Your task to perform on an android device: toggle translation in the chrome app Image 0: 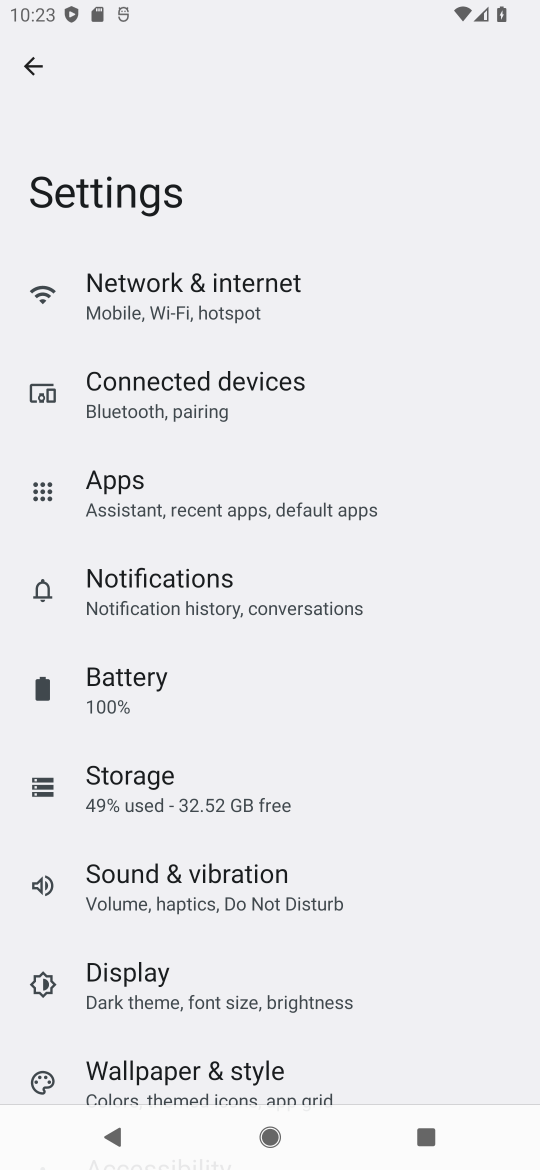
Step 0: press home button
Your task to perform on an android device: toggle translation in the chrome app Image 1: 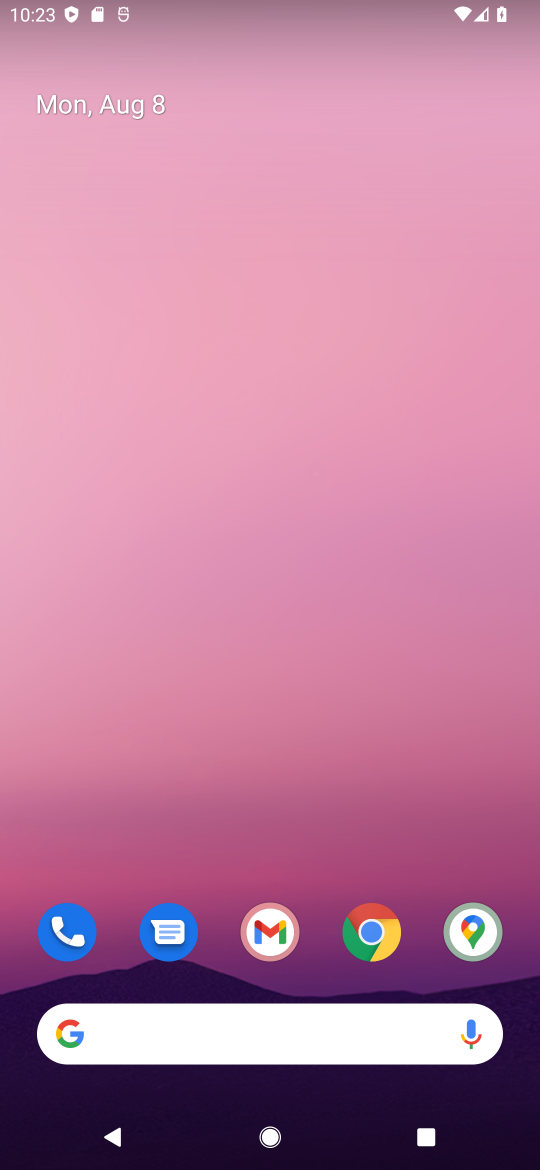
Step 1: click (380, 956)
Your task to perform on an android device: toggle translation in the chrome app Image 2: 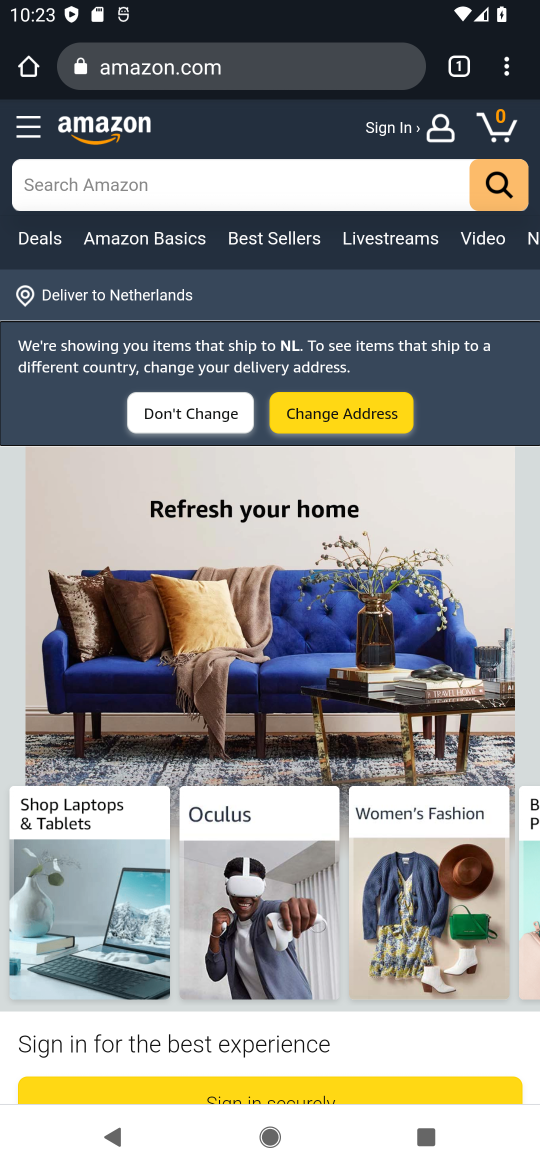
Step 2: click (520, 76)
Your task to perform on an android device: toggle translation in the chrome app Image 3: 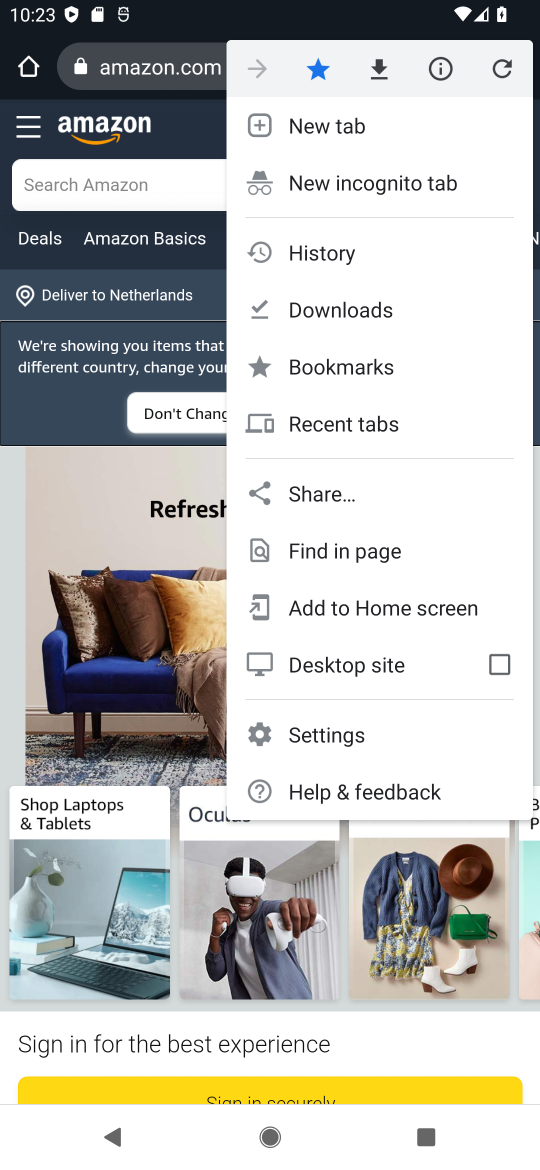
Step 3: click (367, 742)
Your task to perform on an android device: toggle translation in the chrome app Image 4: 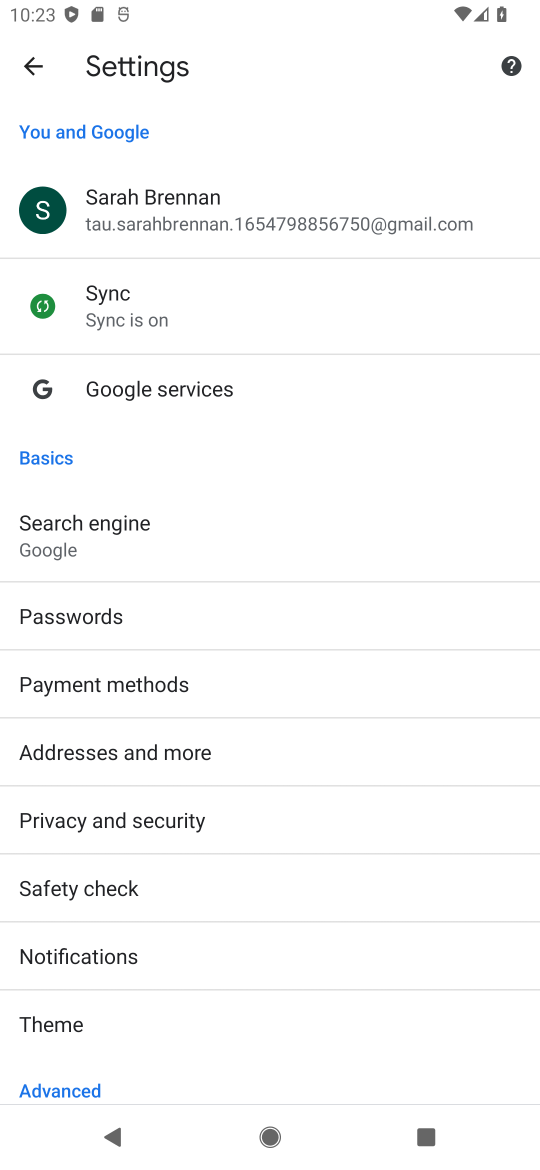
Step 4: drag from (200, 1060) to (67, 517)
Your task to perform on an android device: toggle translation in the chrome app Image 5: 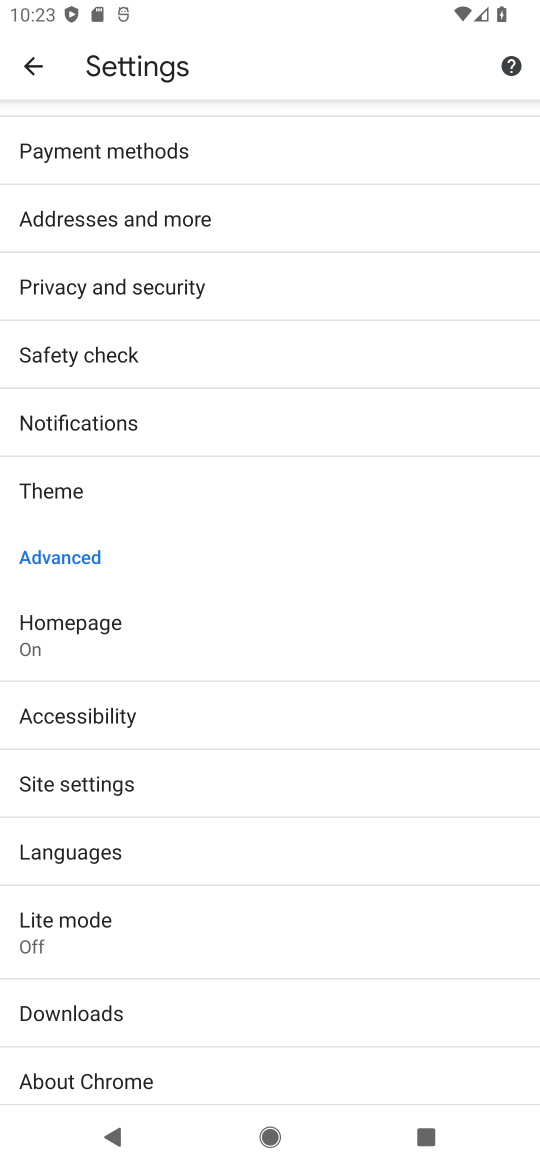
Step 5: click (152, 851)
Your task to perform on an android device: toggle translation in the chrome app Image 6: 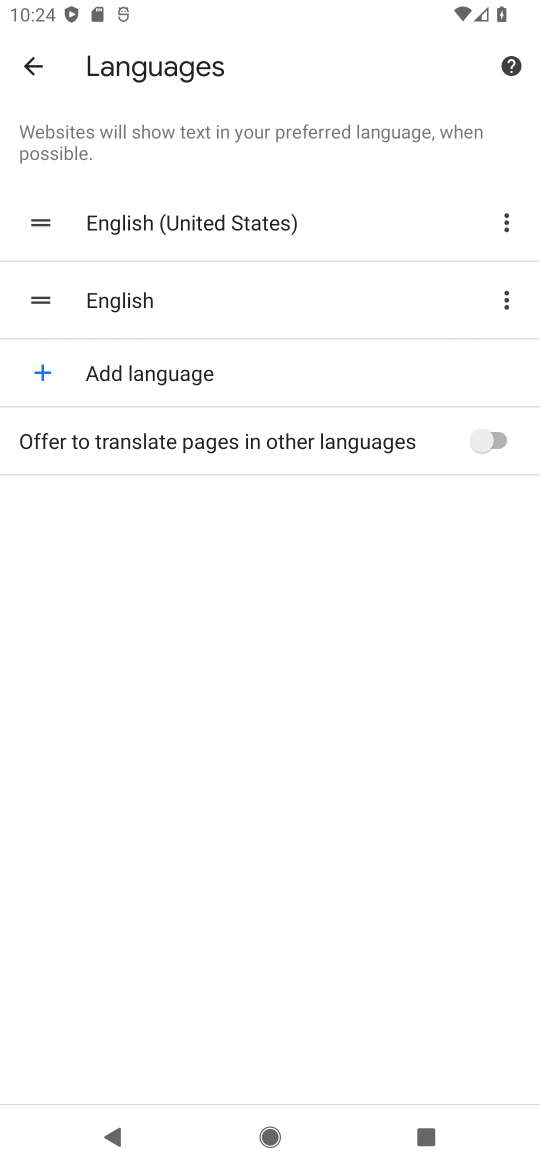
Step 6: click (510, 439)
Your task to perform on an android device: toggle translation in the chrome app Image 7: 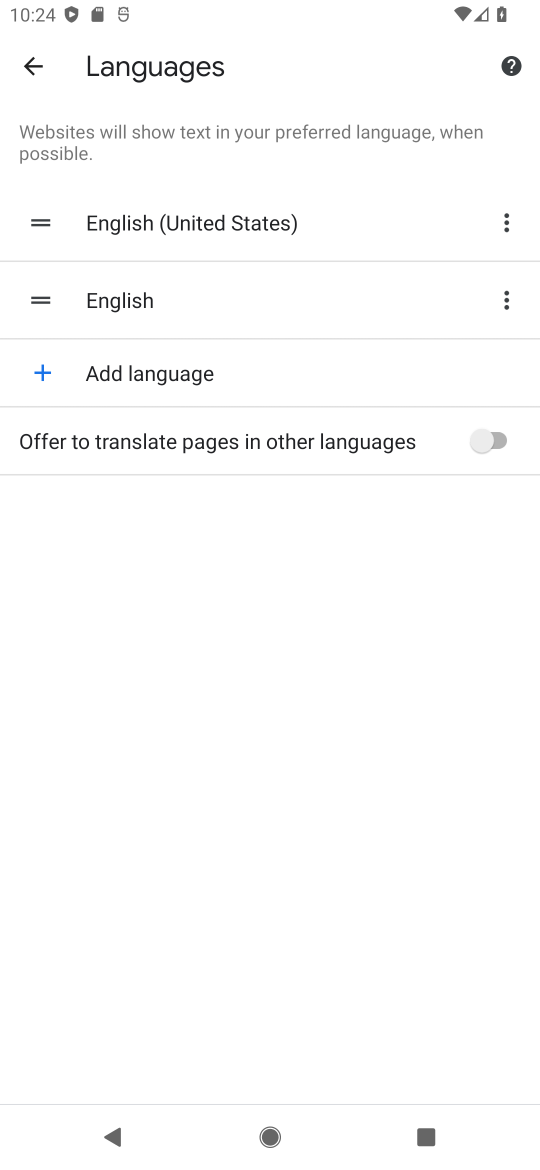
Step 7: click (510, 439)
Your task to perform on an android device: toggle translation in the chrome app Image 8: 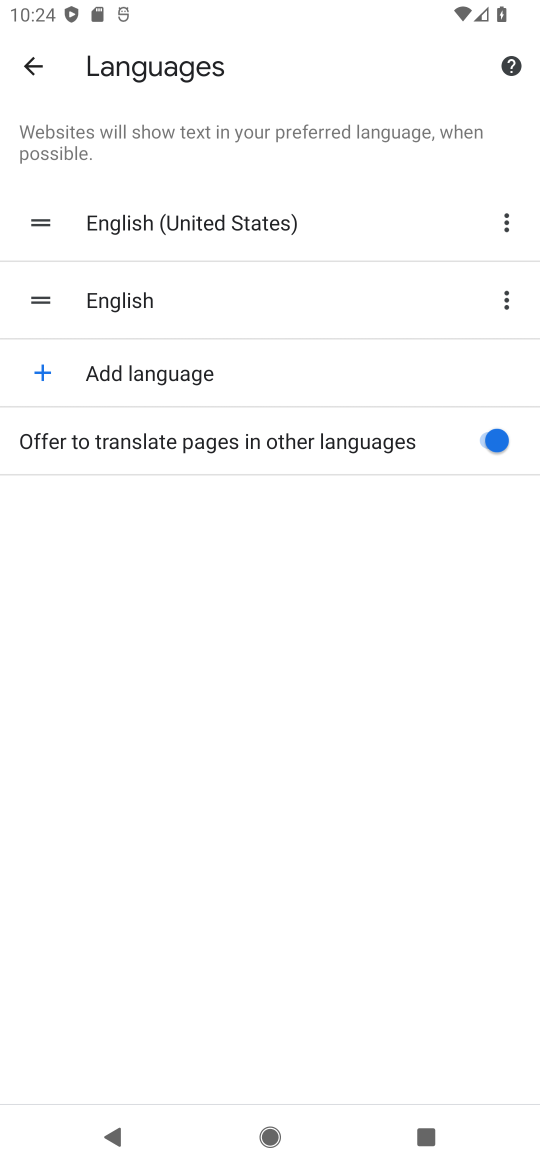
Step 8: click (510, 439)
Your task to perform on an android device: toggle translation in the chrome app Image 9: 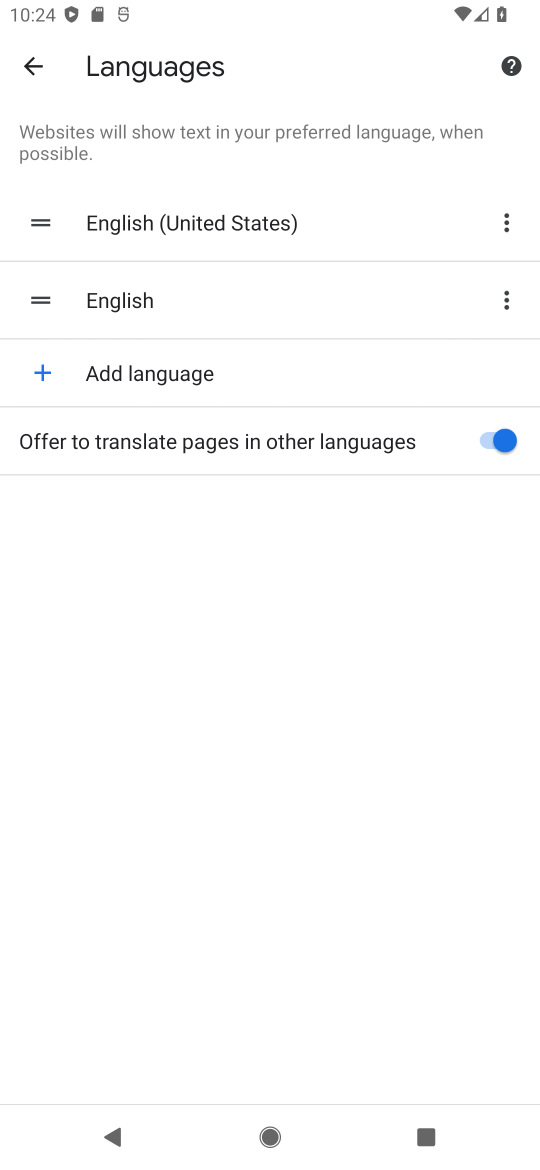
Step 9: task complete